Your task to perform on an android device: Open network settings Image 0: 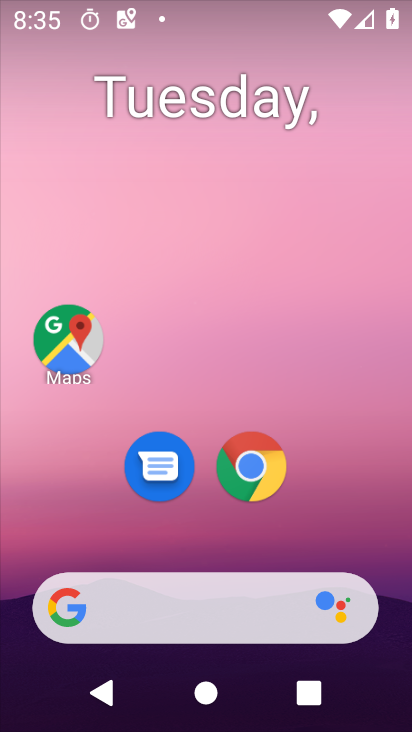
Step 0: drag from (208, 537) to (231, 105)
Your task to perform on an android device: Open network settings Image 1: 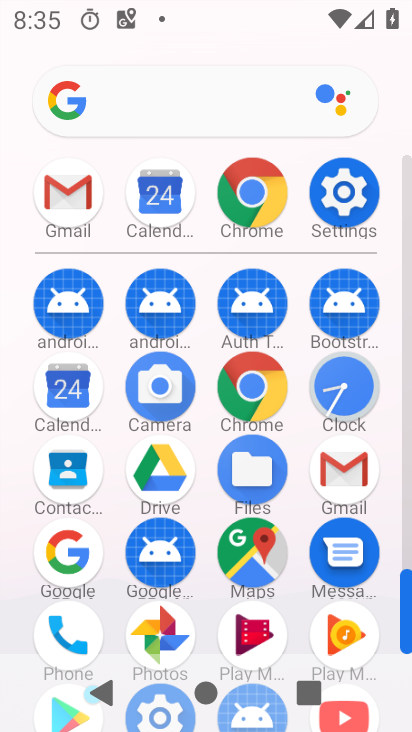
Step 1: click (341, 188)
Your task to perform on an android device: Open network settings Image 2: 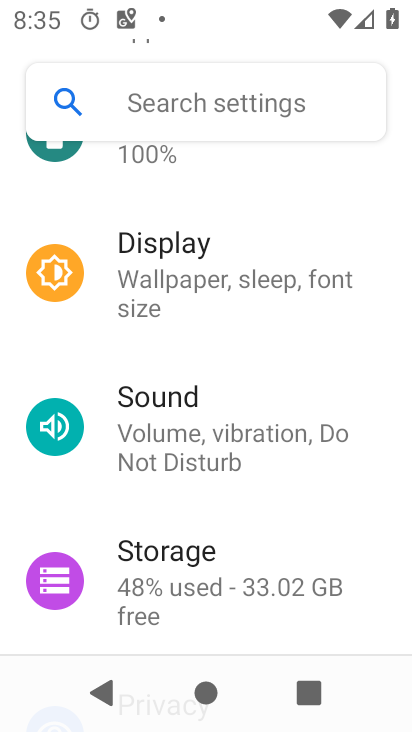
Step 2: drag from (204, 253) to (164, 580)
Your task to perform on an android device: Open network settings Image 3: 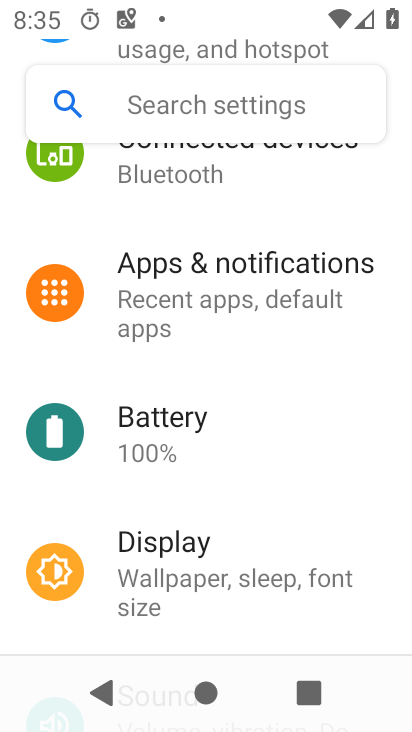
Step 3: drag from (219, 274) to (194, 568)
Your task to perform on an android device: Open network settings Image 4: 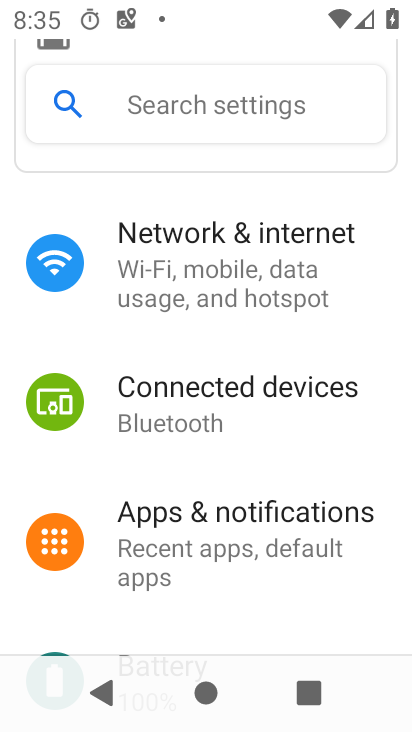
Step 4: click (245, 273)
Your task to perform on an android device: Open network settings Image 5: 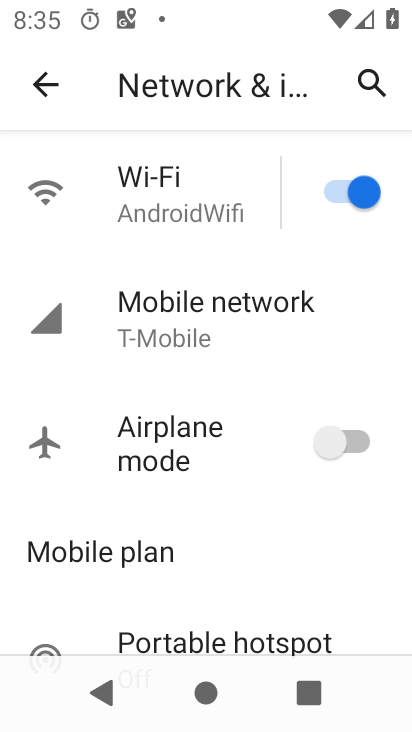
Step 5: task complete